Your task to perform on an android device: refresh tabs in the chrome app Image 0: 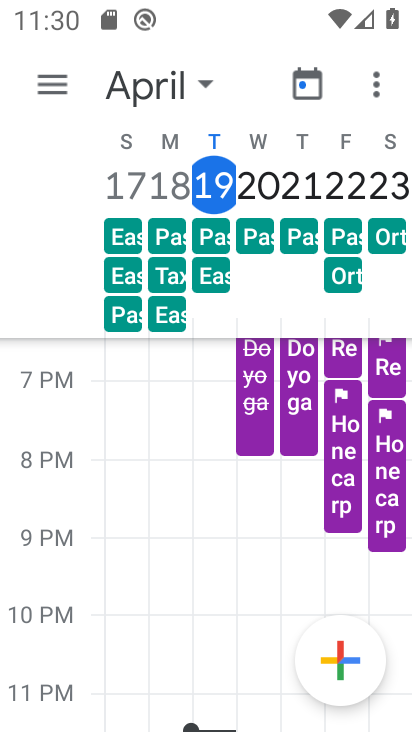
Step 0: press home button
Your task to perform on an android device: refresh tabs in the chrome app Image 1: 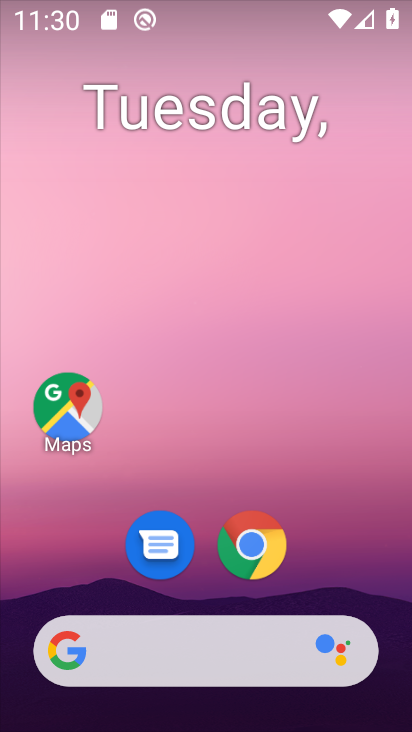
Step 1: click (254, 536)
Your task to perform on an android device: refresh tabs in the chrome app Image 2: 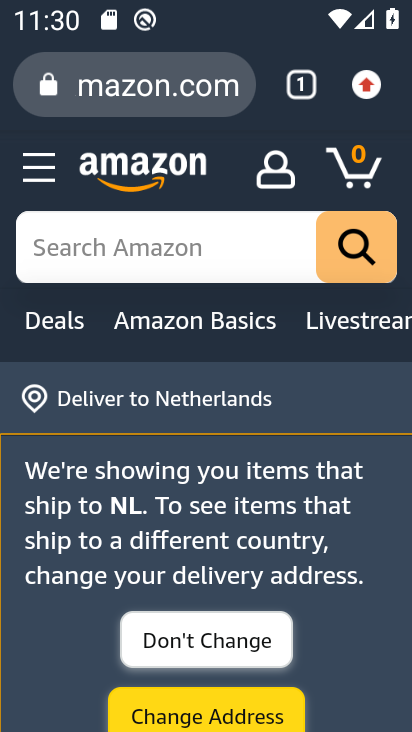
Step 2: click (368, 90)
Your task to perform on an android device: refresh tabs in the chrome app Image 3: 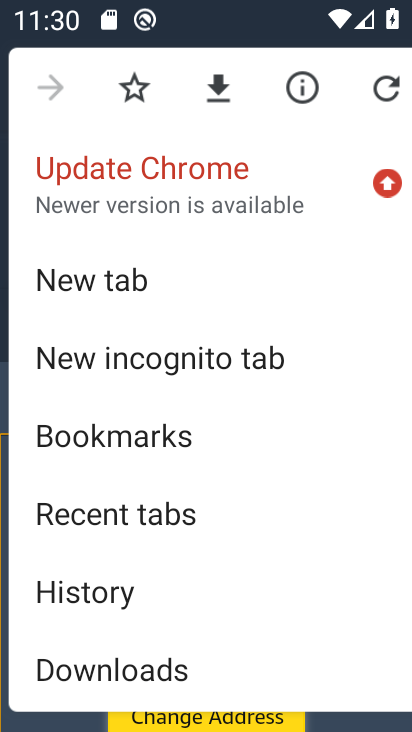
Step 3: click (368, 90)
Your task to perform on an android device: refresh tabs in the chrome app Image 4: 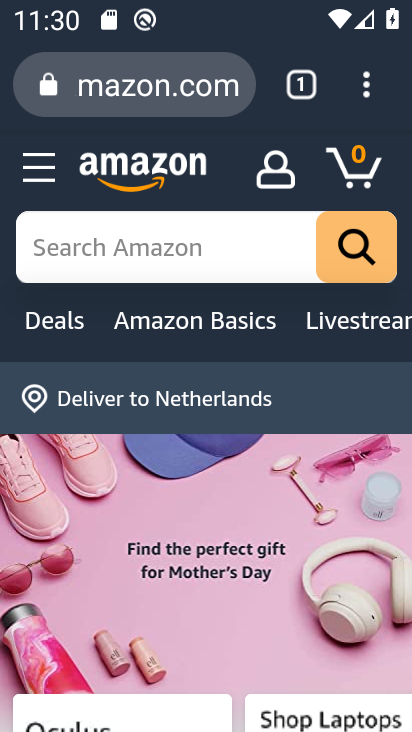
Step 4: task complete